Your task to perform on an android device: remove spam from my inbox in the gmail app Image 0: 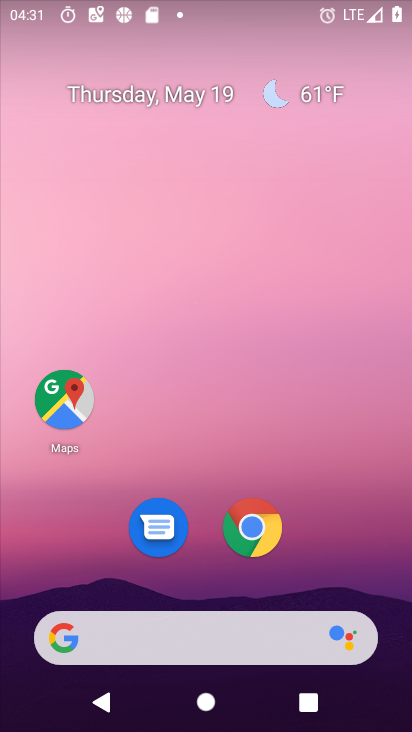
Step 0: drag from (196, 611) to (294, 82)
Your task to perform on an android device: remove spam from my inbox in the gmail app Image 1: 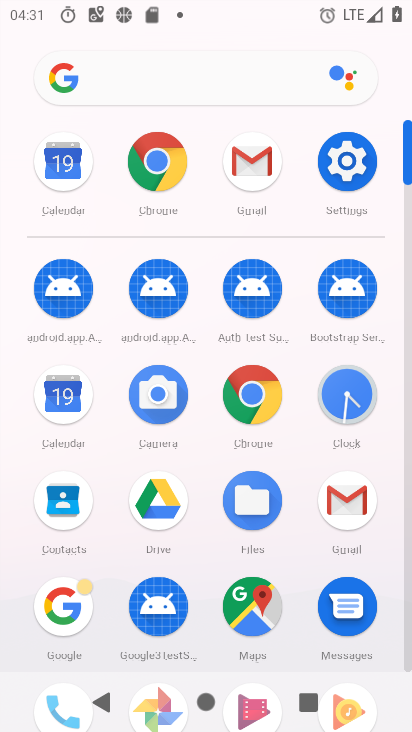
Step 1: click (266, 171)
Your task to perform on an android device: remove spam from my inbox in the gmail app Image 2: 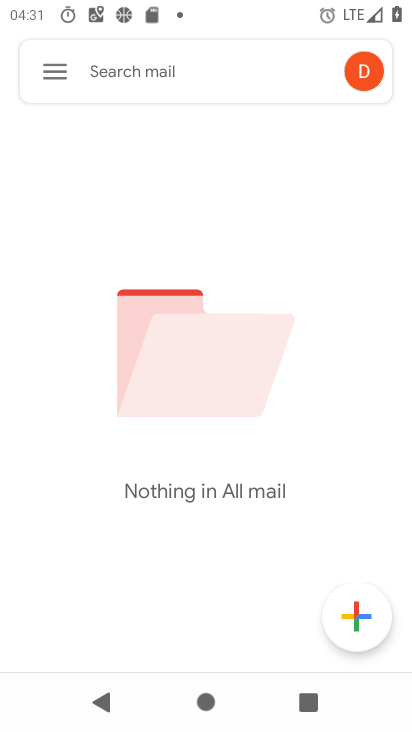
Step 2: click (60, 75)
Your task to perform on an android device: remove spam from my inbox in the gmail app Image 3: 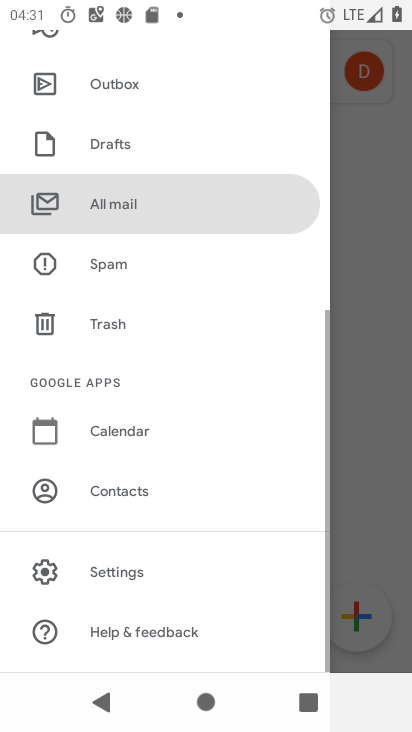
Step 3: click (96, 254)
Your task to perform on an android device: remove spam from my inbox in the gmail app Image 4: 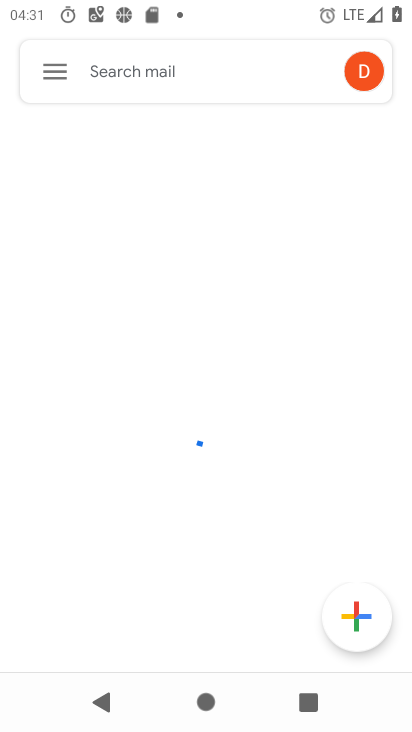
Step 4: task complete